Your task to perform on an android device: search for starred emails in the gmail app Image 0: 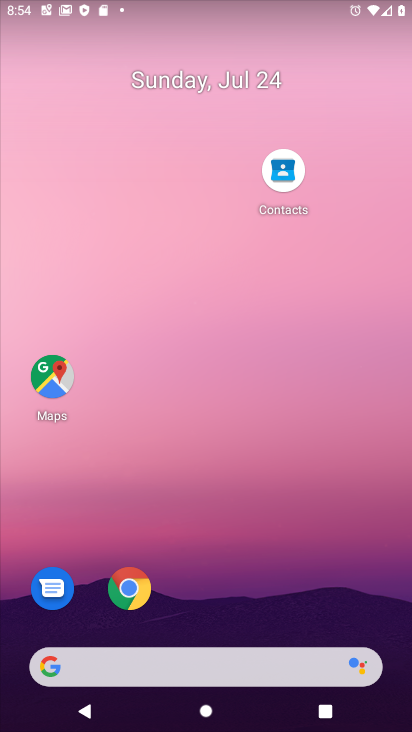
Step 0: press home button
Your task to perform on an android device: search for starred emails in the gmail app Image 1: 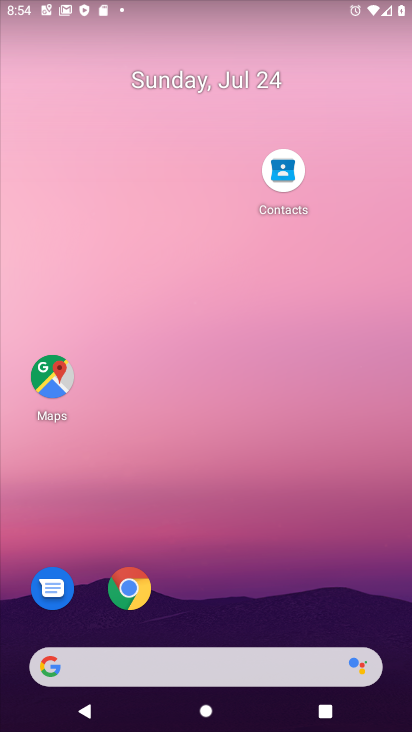
Step 1: drag from (197, 628) to (205, 4)
Your task to perform on an android device: search for starred emails in the gmail app Image 2: 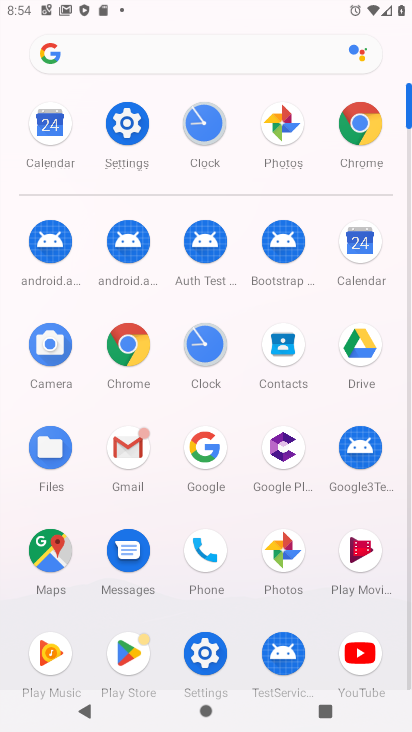
Step 2: click (127, 439)
Your task to perform on an android device: search for starred emails in the gmail app Image 3: 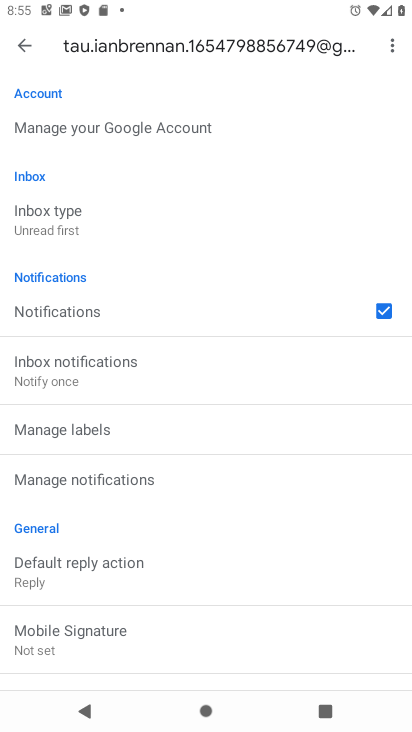
Step 3: click (18, 42)
Your task to perform on an android device: search for starred emails in the gmail app Image 4: 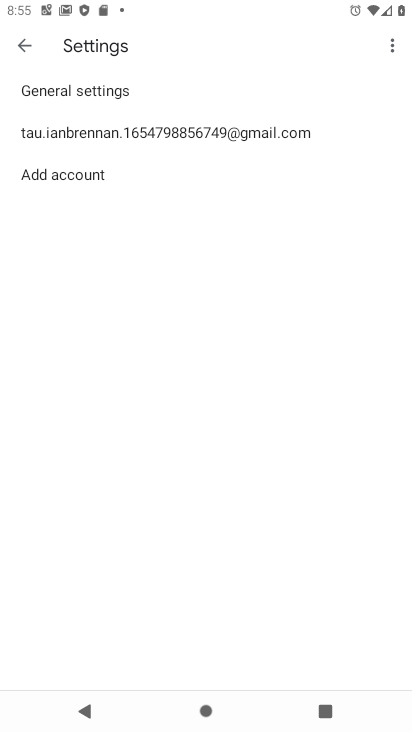
Step 4: click (17, 44)
Your task to perform on an android device: search for starred emails in the gmail app Image 5: 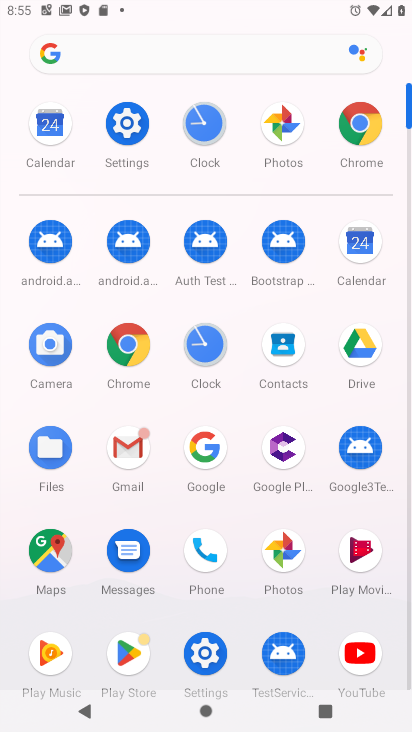
Step 5: click (126, 431)
Your task to perform on an android device: search for starred emails in the gmail app Image 6: 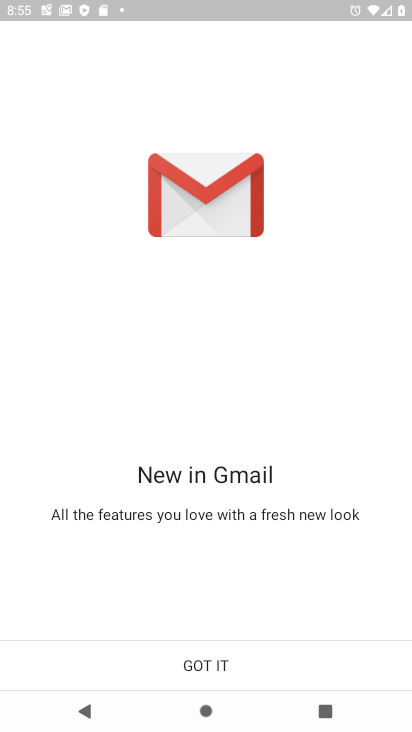
Step 6: click (210, 656)
Your task to perform on an android device: search for starred emails in the gmail app Image 7: 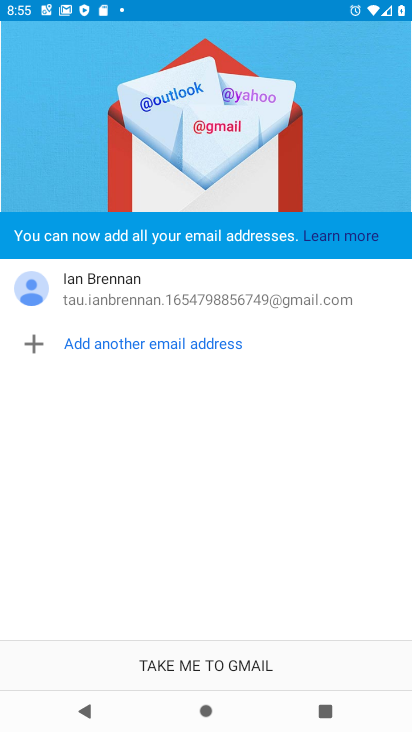
Step 7: click (210, 656)
Your task to perform on an android device: search for starred emails in the gmail app Image 8: 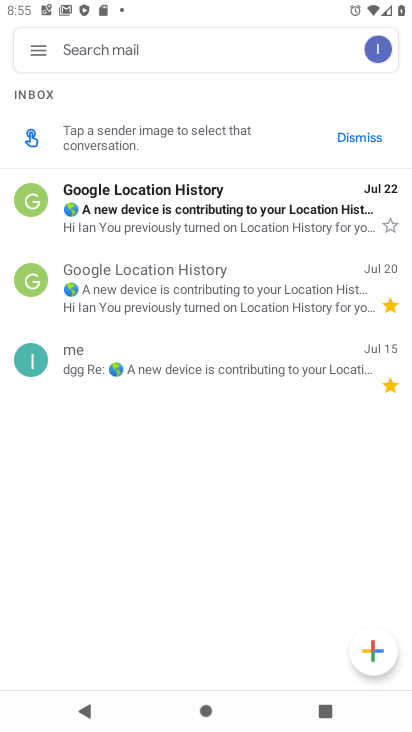
Step 8: click (24, 48)
Your task to perform on an android device: search for starred emails in the gmail app Image 9: 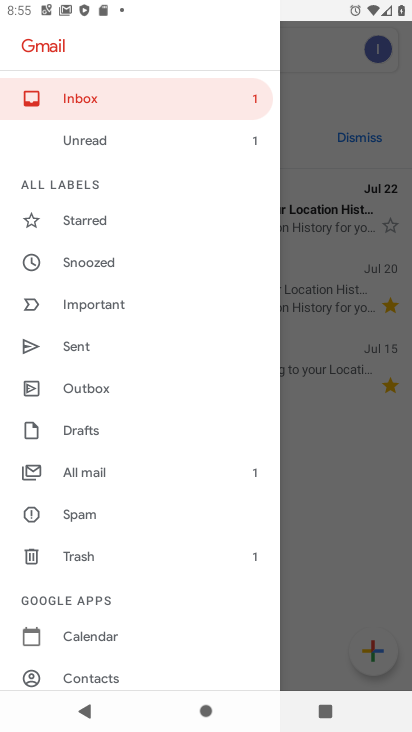
Step 9: click (72, 219)
Your task to perform on an android device: search for starred emails in the gmail app Image 10: 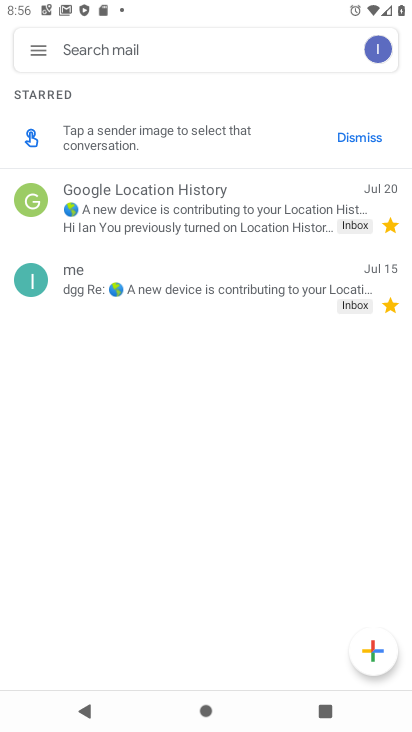
Step 10: task complete